Your task to perform on an android device: uninstall "Cash App" Image 0: 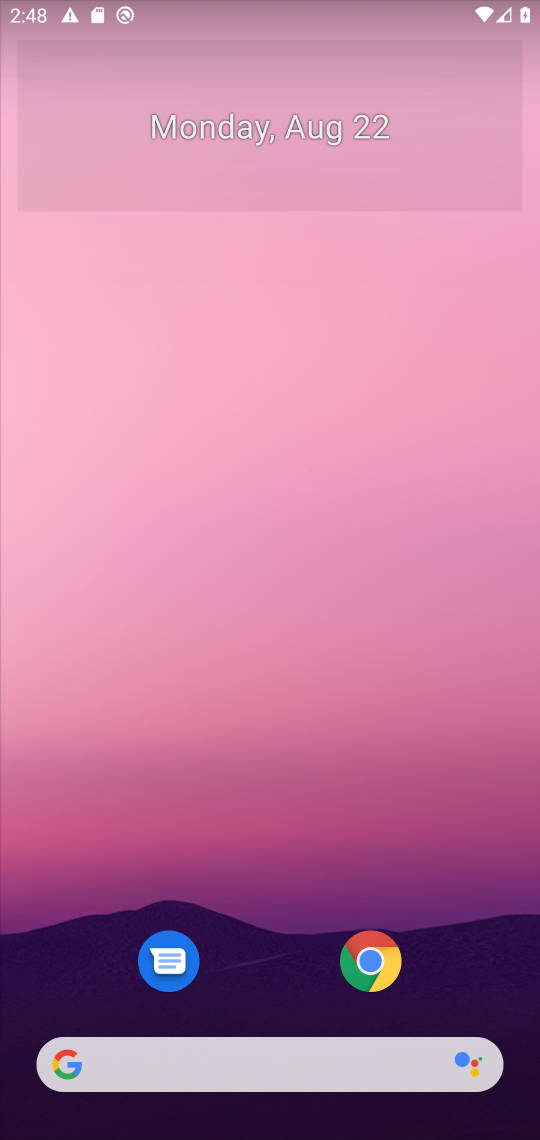
Step 0: press home button
Your task to perform on an android device: uninstall "Cash App" Image 1: 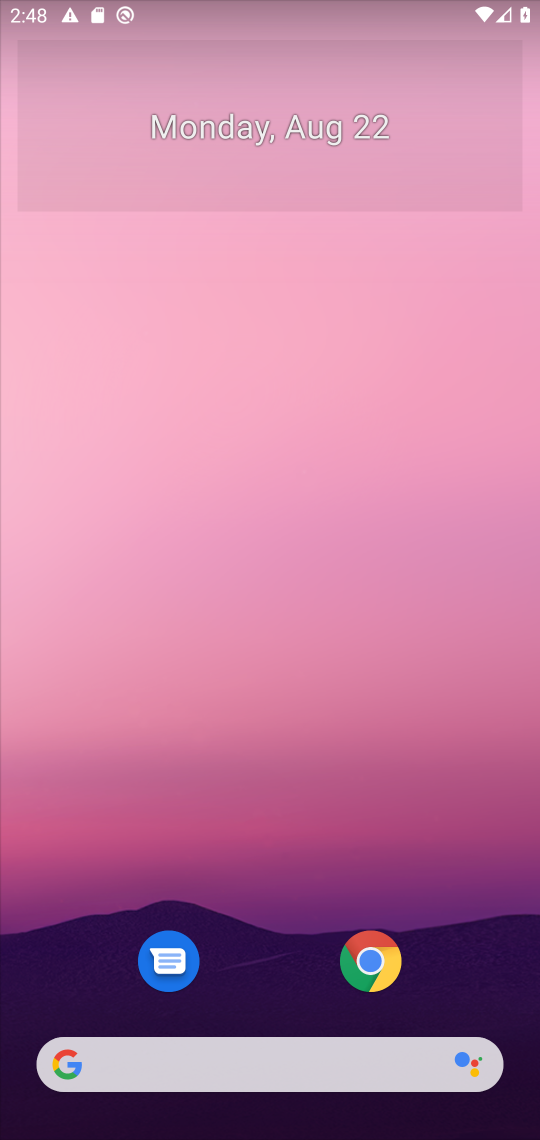
Step 1: drag from (468, 953) to (473, 224)
Your task to perform on an android device: uninstall "Cash App" Image 2: 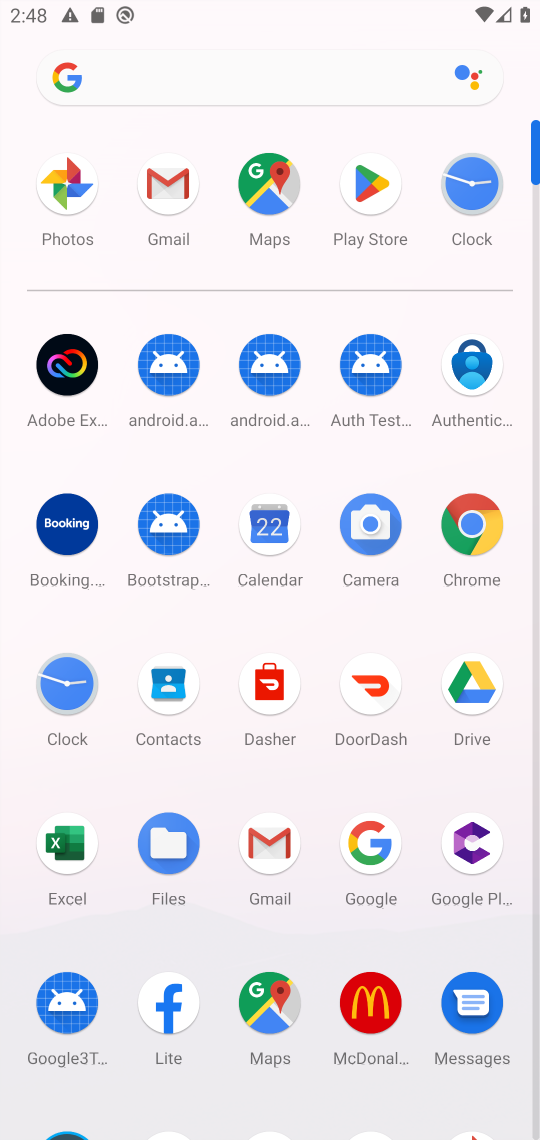
Step 2: click (371, 184)
Your task to perform on an android device: uninstall "Cash App" Image 3: 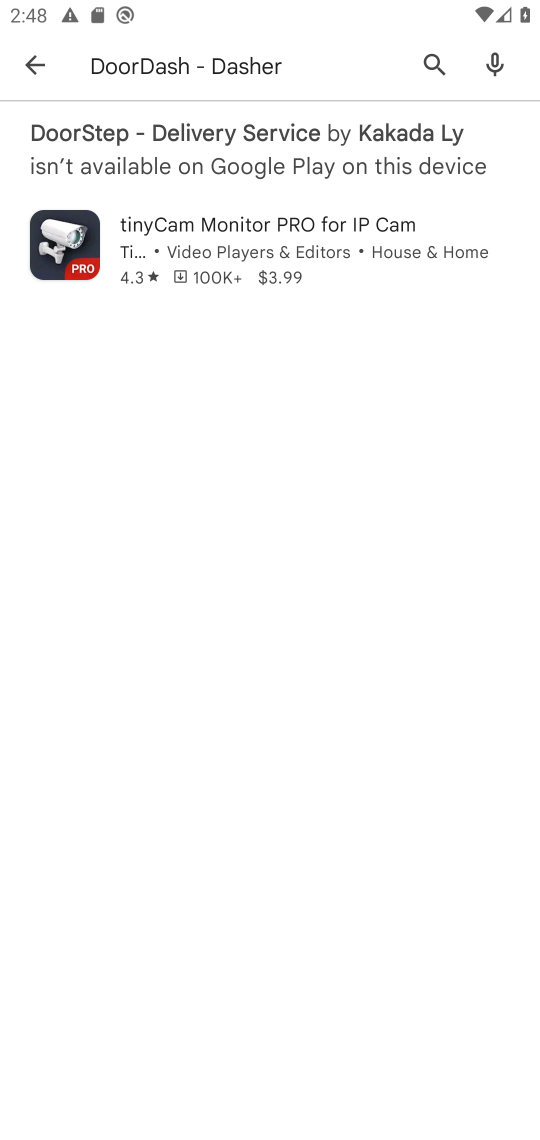
Step 3: press back button
Your task to perform on an android device: uninstall "Cash App" Image 4: 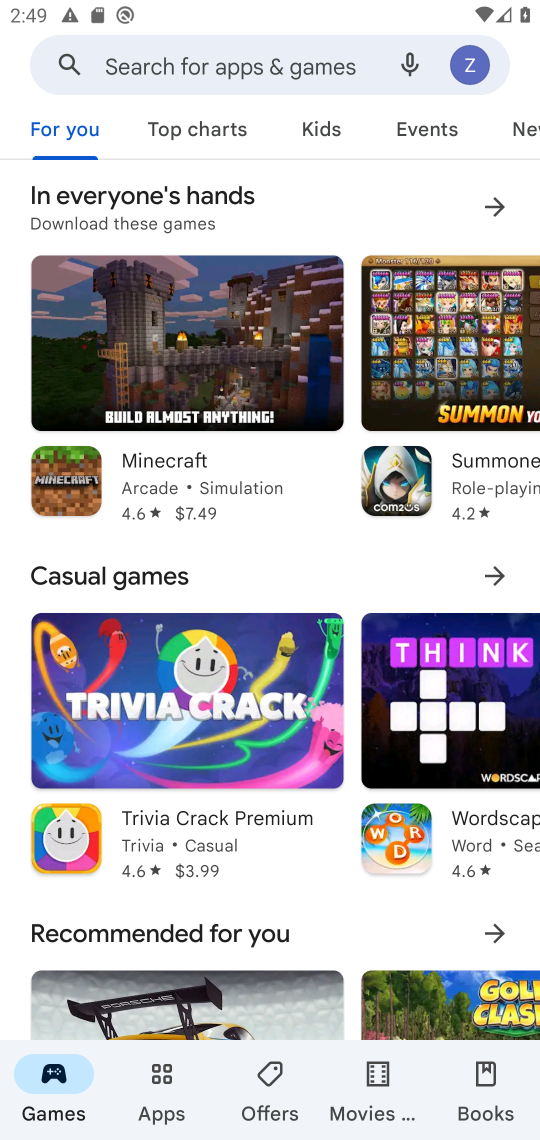
Step 4: click (241, 52)
Your task to perform on an android device: uninstall "Cash App" Image 5: 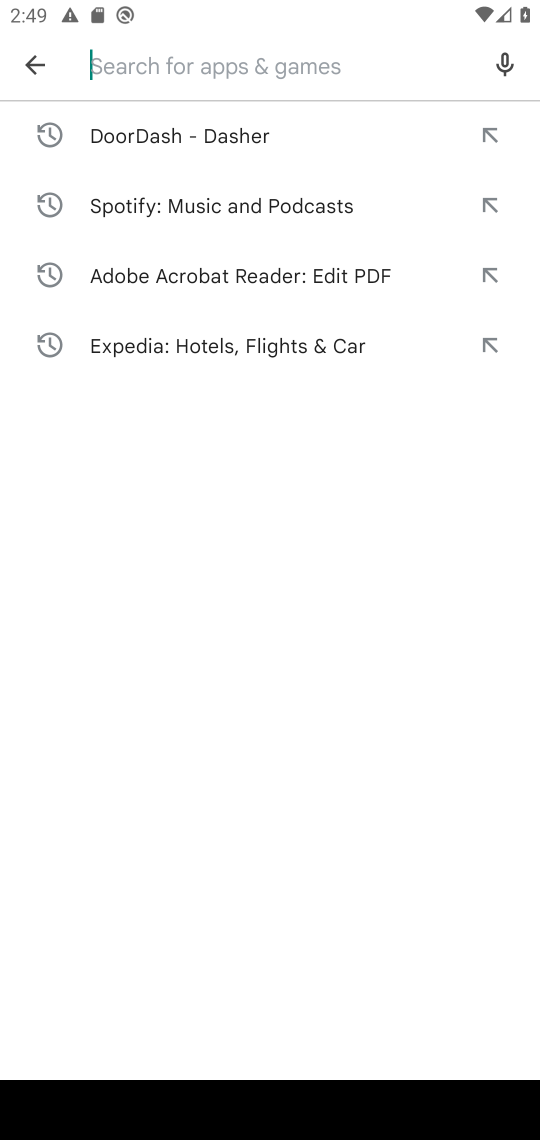
Step 5: type "cash app"
Your task to perform on an android device: uninstall "Cash App" Image 6: 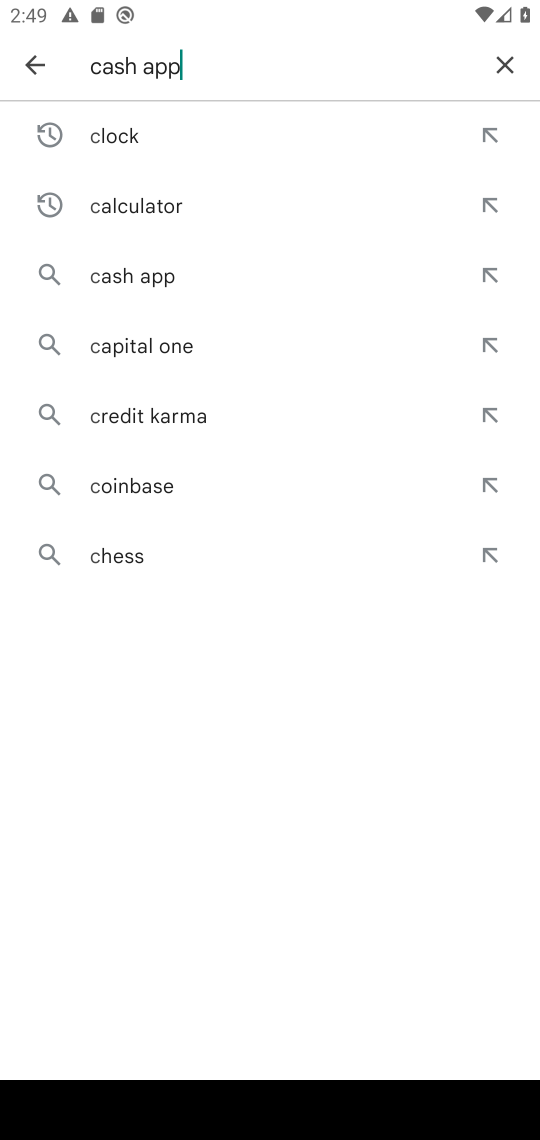
Step 6: press enter
Your task to perform on an android device: uninstall "Cash App" Image 7: 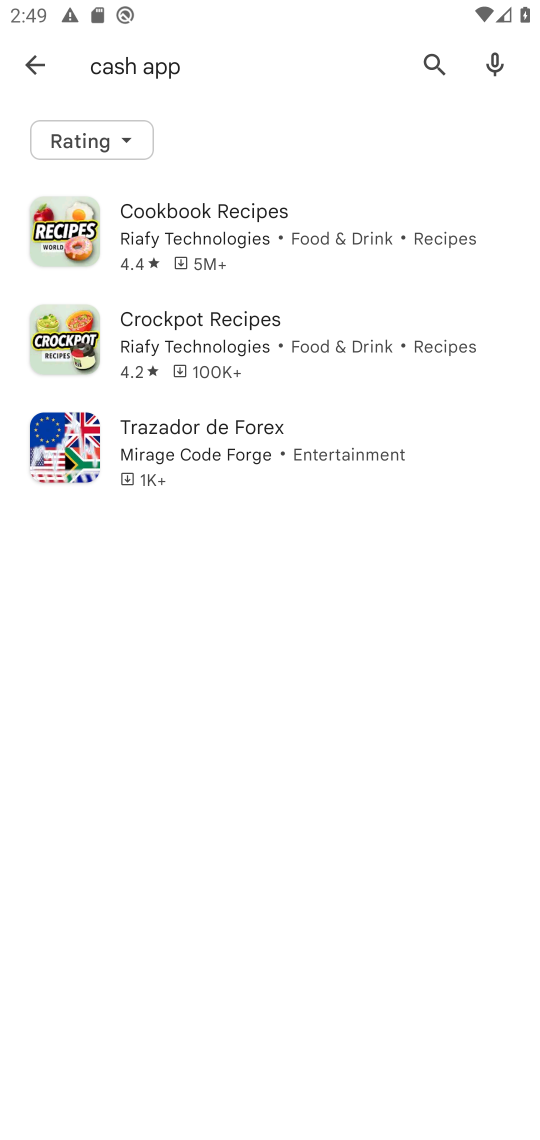
Step 7: task complete